Your task to perform on an android device: Search for Mexican restaurants on Maps Image 0: 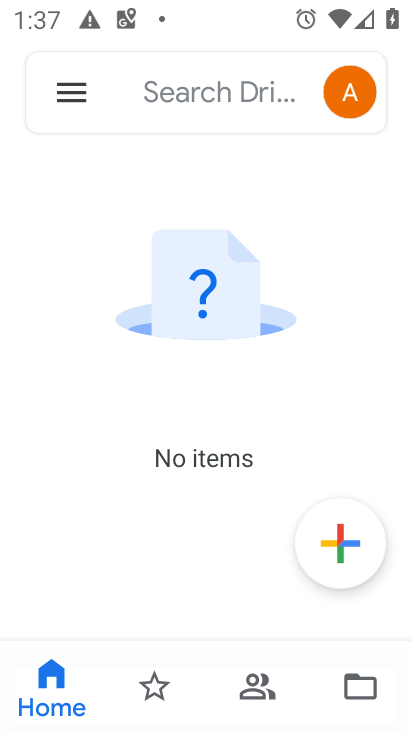
Step 0: press home button
Your task to perform on an android device: Search for Mexican restaurants on Maps Image 1: 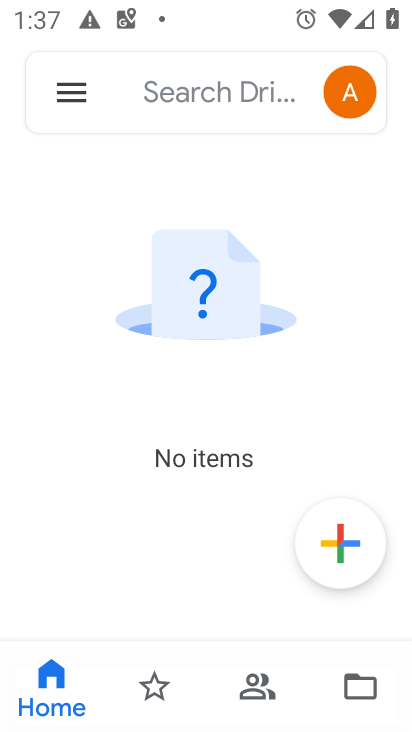
Step 1: press home button
Your task to perform on an android device: Search for Mexican restaurants on Maps Image 2: 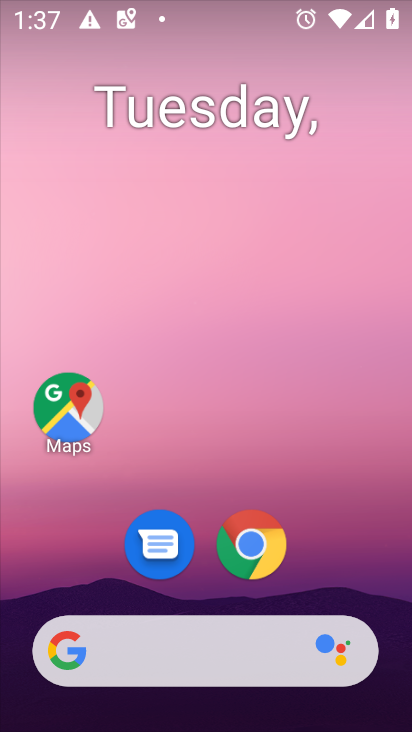
Step 2: drag from (316, 158) to (301, 22)
Your task to perform on an android device: Search for Mexican restaurants on Maps Image 3: 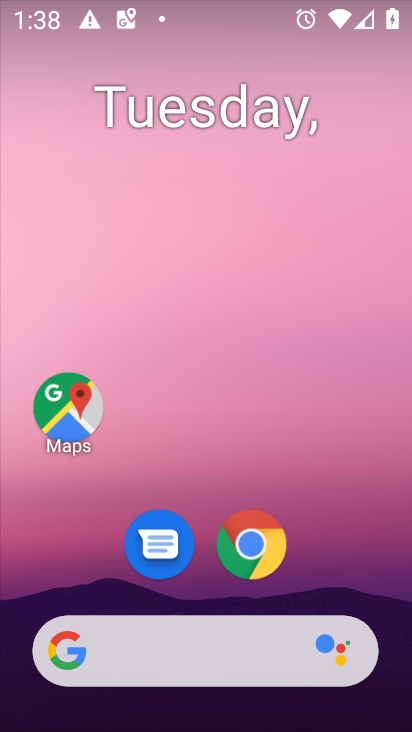
Step 3: drag from (316, 548) to (318, 26)
Your task to perform on an android device: Search for Mexican restaurants on Maps Image 4: 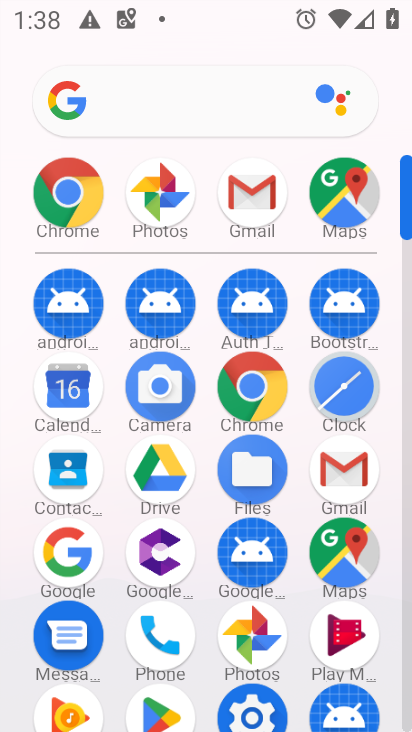
Step 4: click (346, 548)
Your task to perform on an android device: Search for Mexican restaurants on Maps Image 5: 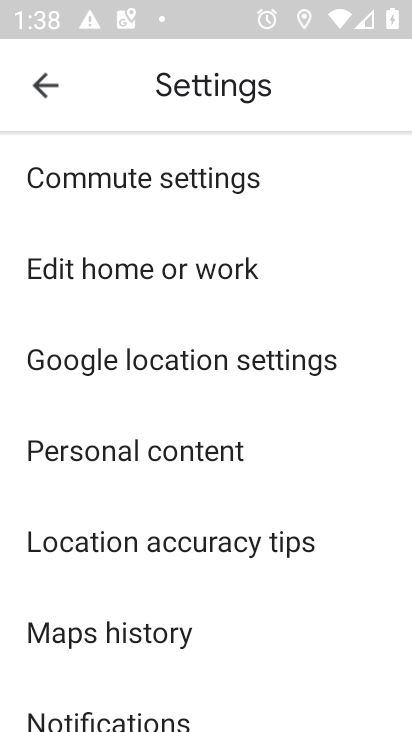
Step 5: click (29, 77)
Your task to perform on an android device: Search for Mexican restaurants on Maps Image 6: 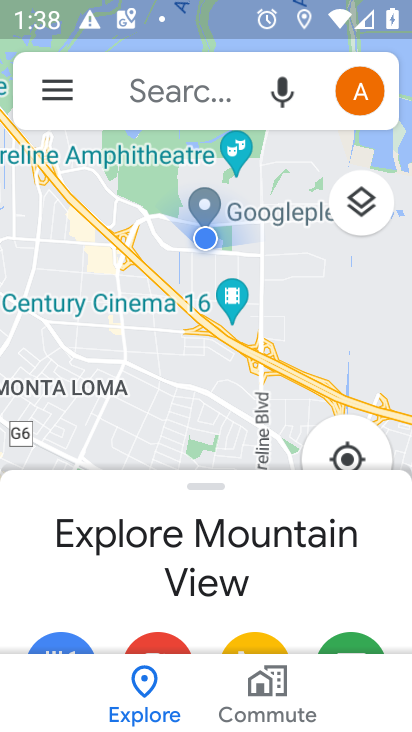
Step 6: click (130, 100)
Your task to perform on an android device: Search for Mexican restaurants on Maps Image 7: 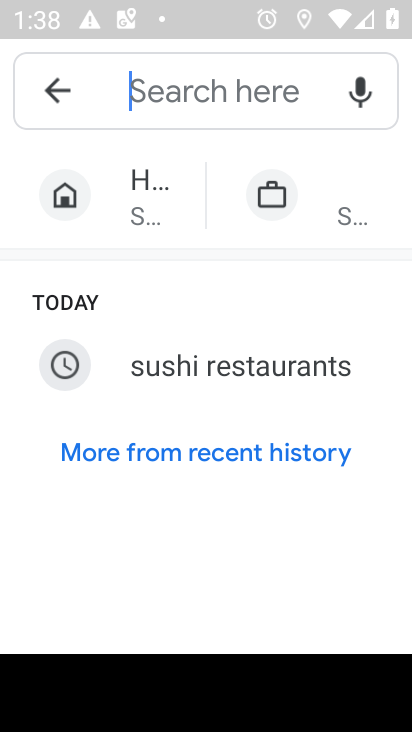
Step 7: type "Mexican restaurants"
Your task to perform on an android device: Search for Mexican restaurants on Maps Image 8: 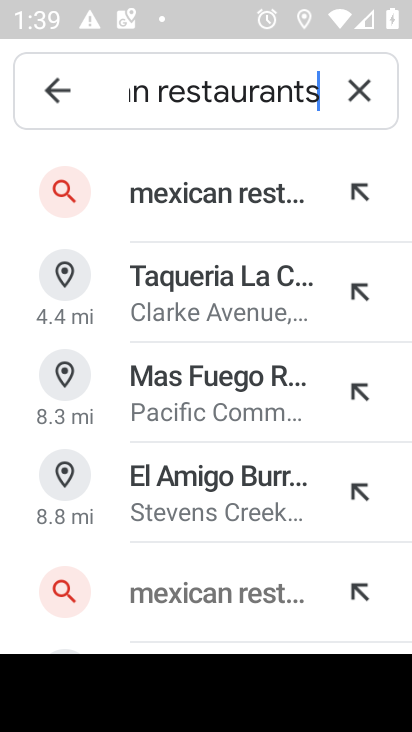
Step 8: press enter
Your task to perform on an android device: Search for Mexican restaurants on Maps Image 9: 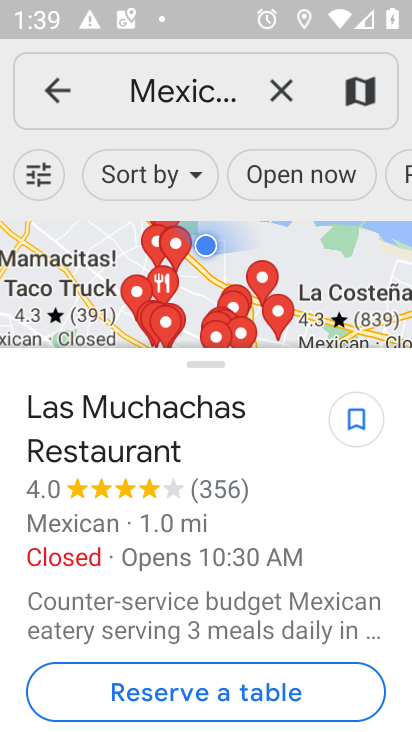
Step 9: task complete